Your task to perform on an android device: Open Google Maps Image 0: 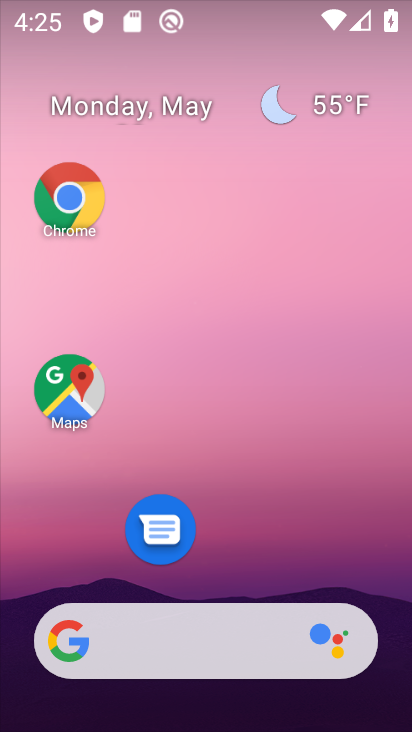
Step 0: drag from (212, 607) to (273, 115)
Your task to perform on an android device: Open Google Maps Image 1: 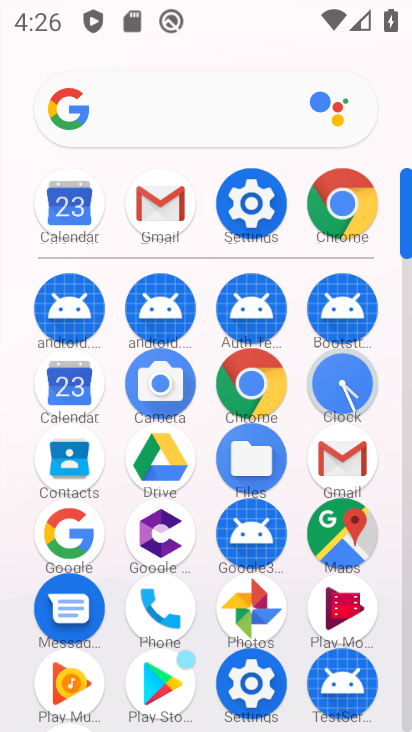
Step 1: click (335, 545)
Your task to perform on an android device: Open Google Maps Image 2: 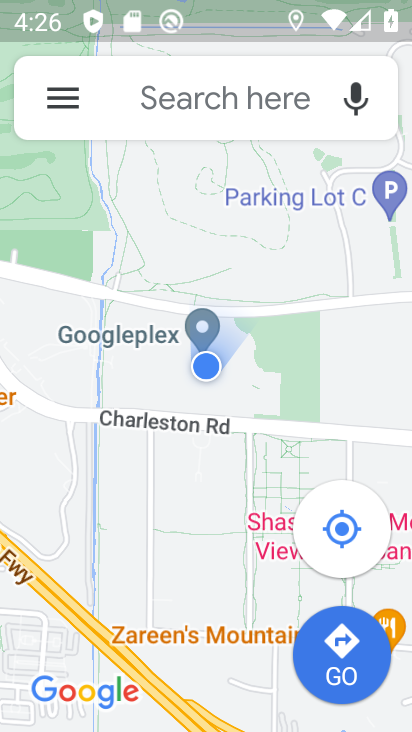
Step 2: task complete